Your task to perform on an android device: Open ESPN.com Image 0: 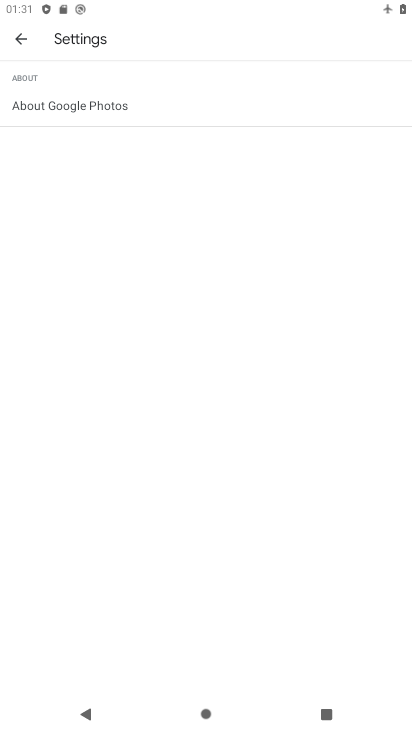
Step 0: press home button
Your task to perform on an android device: Open ESPN.com Image 1: 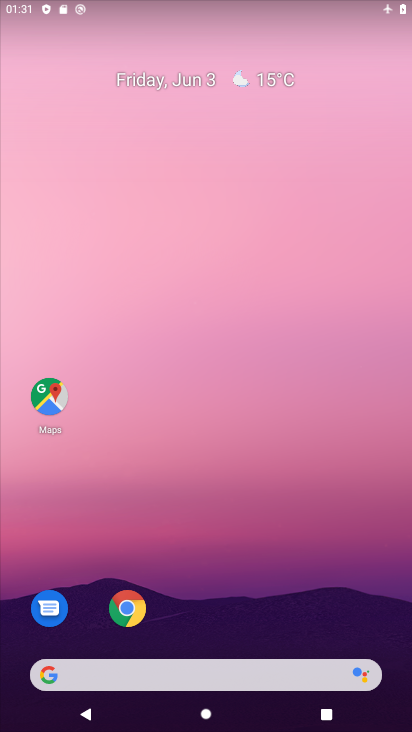
Step 1: click (124, 612)
Your task to perform on an android device: Open ESPN.com Image 2: 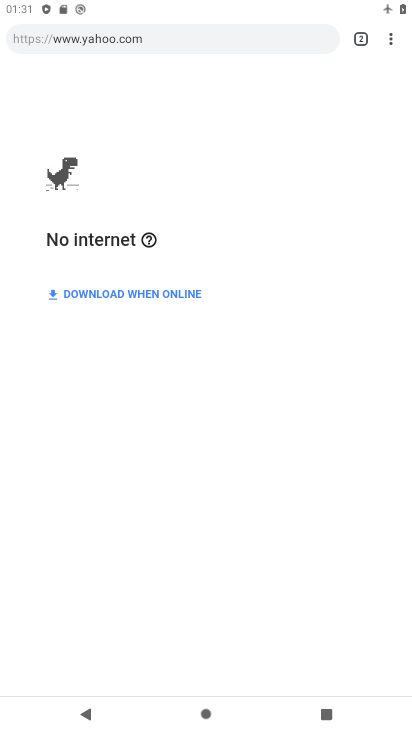
Step 2: click (223, 41)
Your task to perform on an android device: Open ESPN.com Image 3: 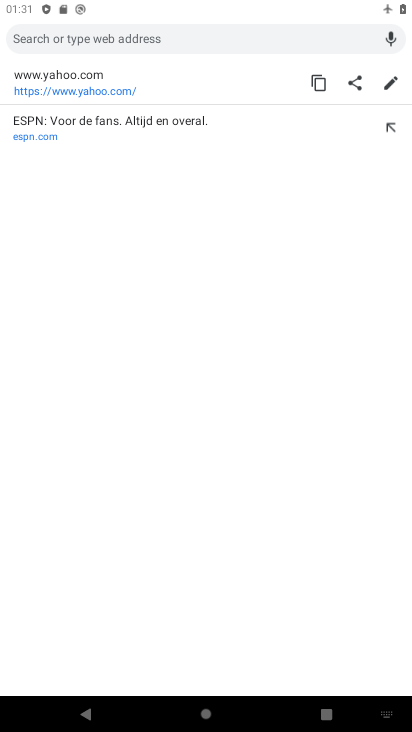
Step 3: click (40, 131)
Your task to perform on an android device: Open ESPN.com Image 4: 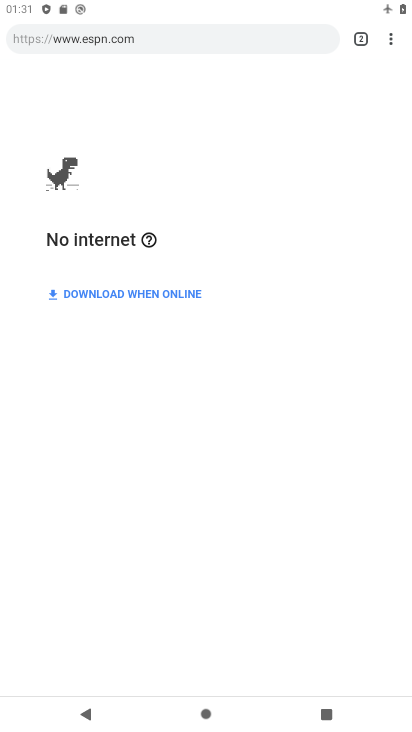
Step 4: task complete